Your task to perform on an android device: Do I have any events today? Image 0: 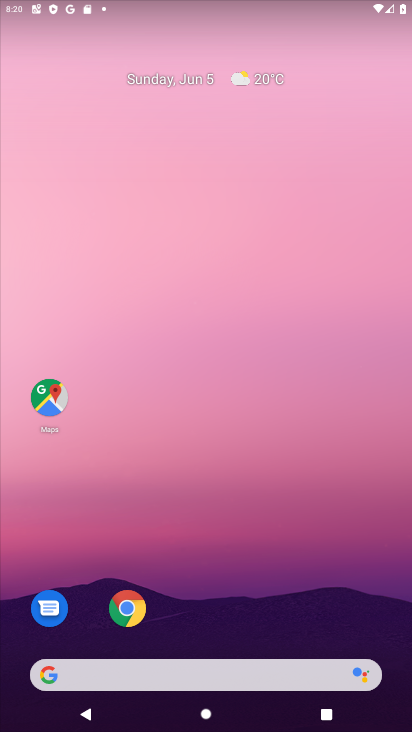
Step 0: press home button
Your task to perform on an android device: Do I have any events today? Image 1: 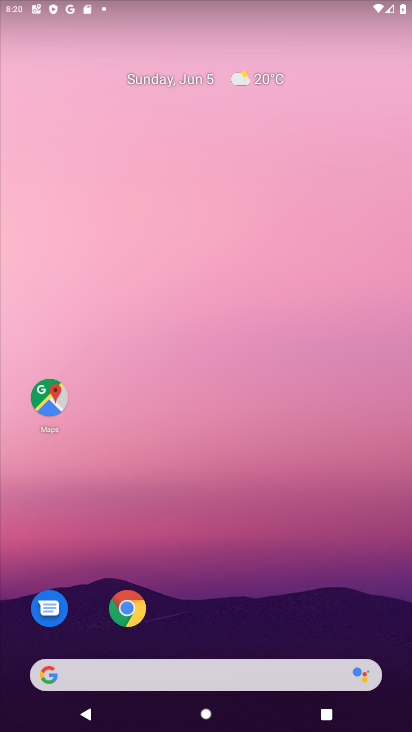
Step 1: click (156, 666)
Your task to perform on an android device: Do I have any events today? Image 2: 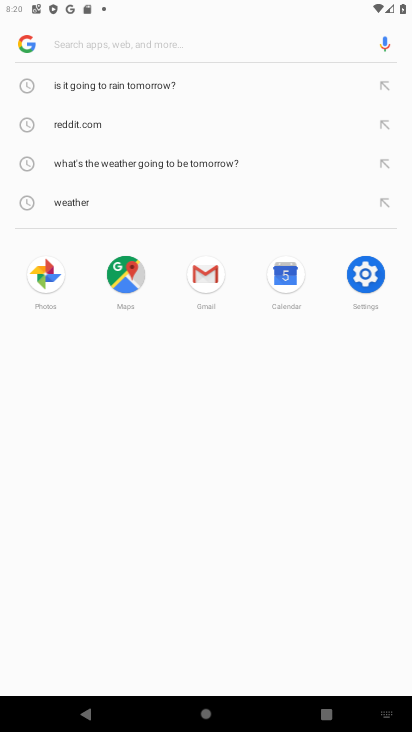
Step 2: press home button
Your task to perform on an android device: Do I have any events today? Image 3: 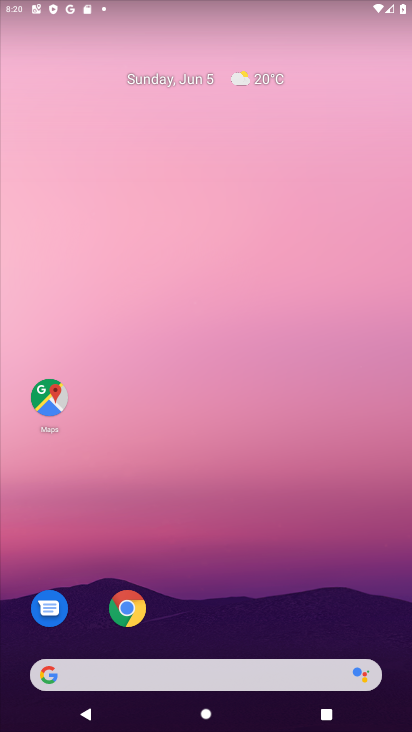
Step 3: drag from (67, 479) to (244, 150)
Your task to perform on an android device: Do I have any events today? Image 4: 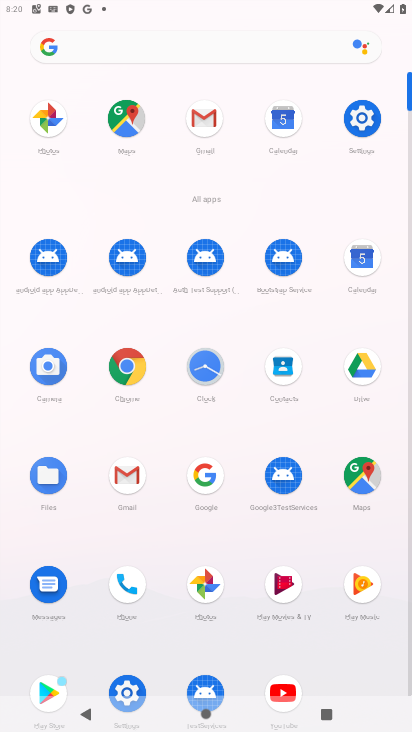
Step 4: click (276, 123)
Your task to perform on an android device: Do I have any events today? Image 5: 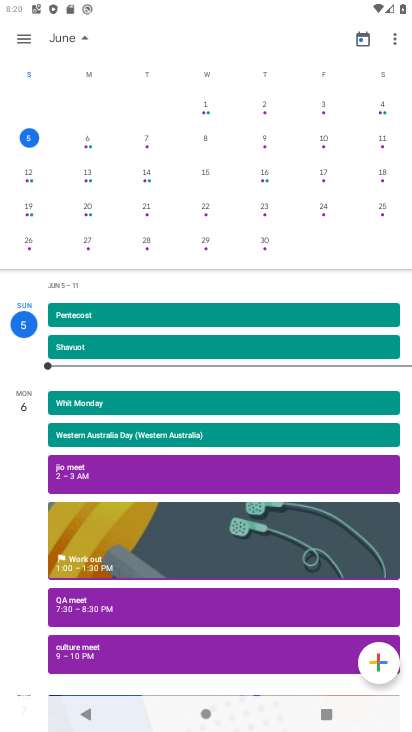
Step 5: click (88, 142)
Your task to perform on an android device: Do I have any events today? Image 6: 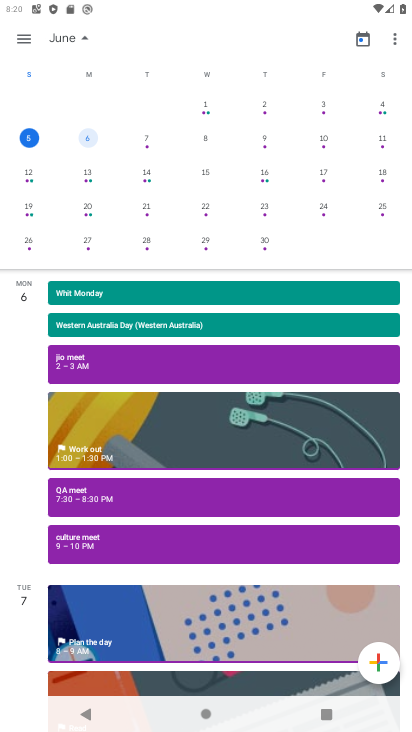
Step 6: task complete